Your task to perform on an android device: Open wifi settings Image 0: 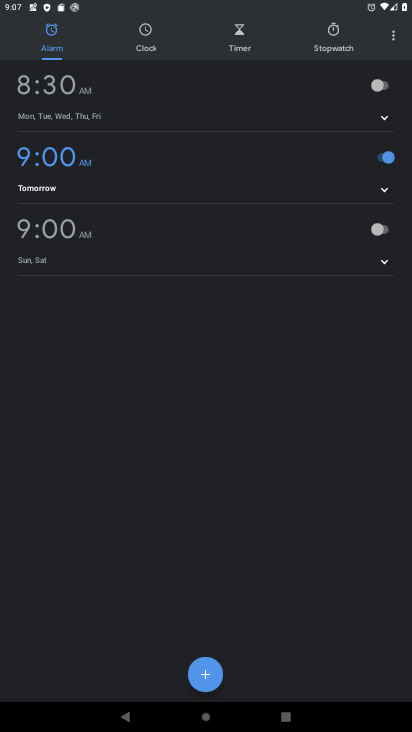
Step 0: press home button
Your task to perform on an android device: Open wifi settings Image 1: 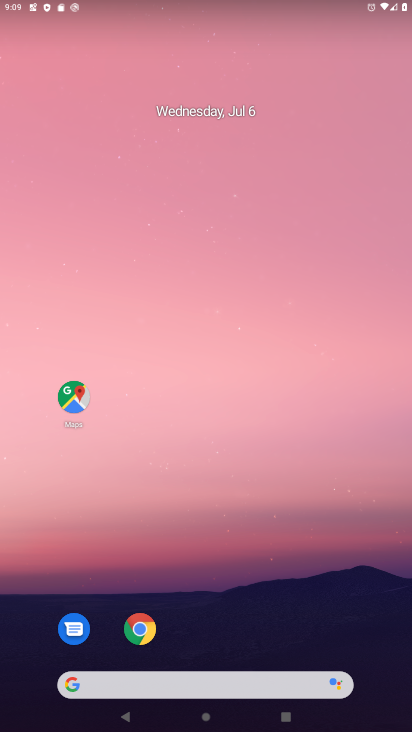
Step 1: drag from (240, 15) to (238, 456)
Your task to perform on an android device: Open wifi settings Image 2: 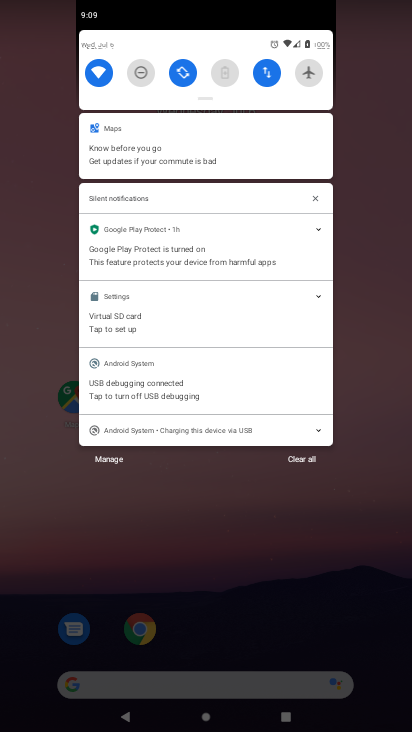
Step 2: click (90, 76)
Your task to perform on an android device: Open wifi settings Image 3: 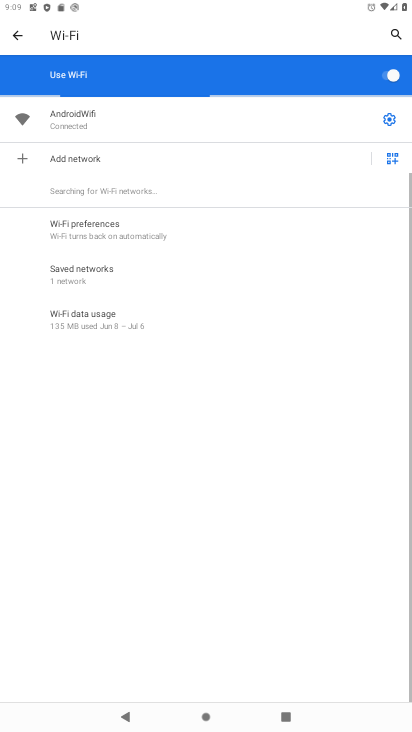
Step 3: click (391, 116)
Your task to perform on an android device: Open wifi settings Image 4: 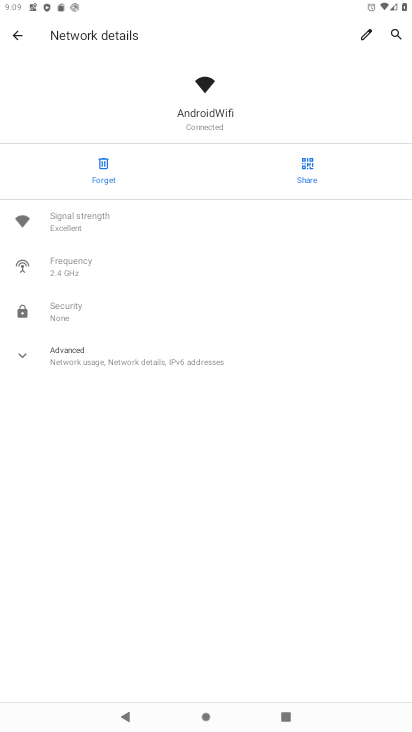
Step 4: task complete